Your task to perform on an android device: Open settings Image 0: 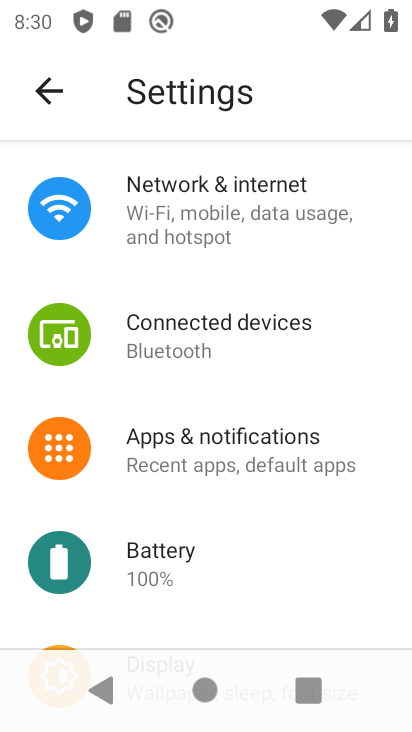
Step 0: task complete